Your task to perform on an android device: turn off improve location accuracy Image 0: 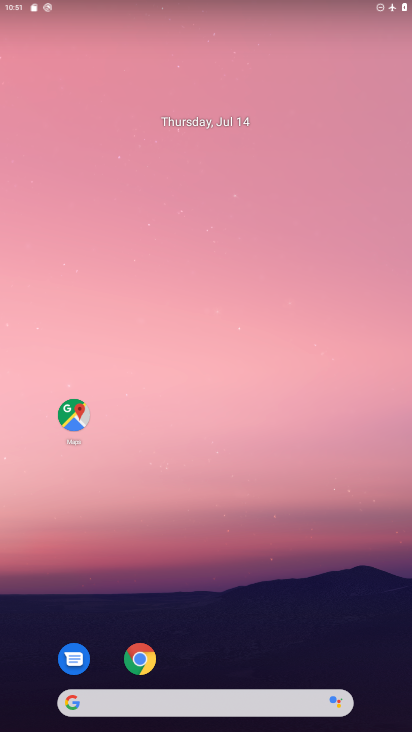
Step 0: drag from (238, 625) to (241, 144)
Your task to perform on an android device: turn off improve location accuracy Image 1: 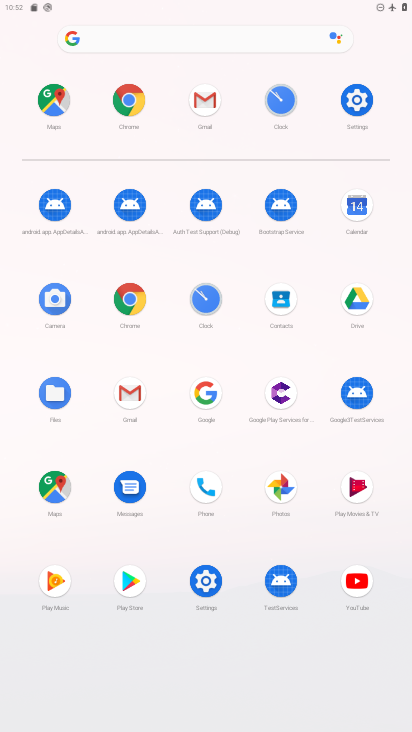
Step 1: click (358, 101)
Your task to perform on an android device: turn off improve location accuracy Image 2: 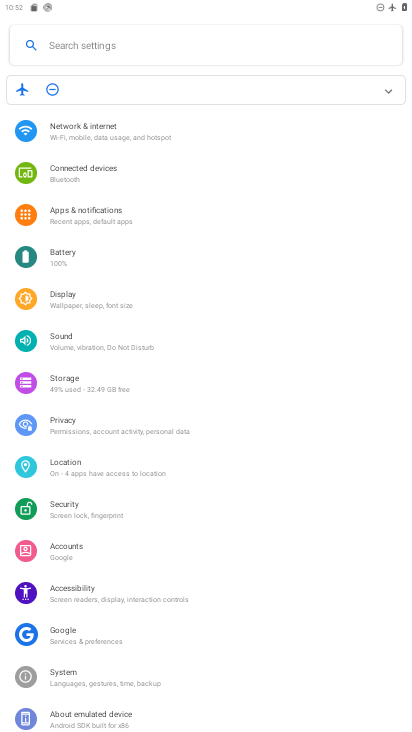
Step 2: click (115, 467)
Your task to perform on an android device: turn off improve location accuracy Image 3: 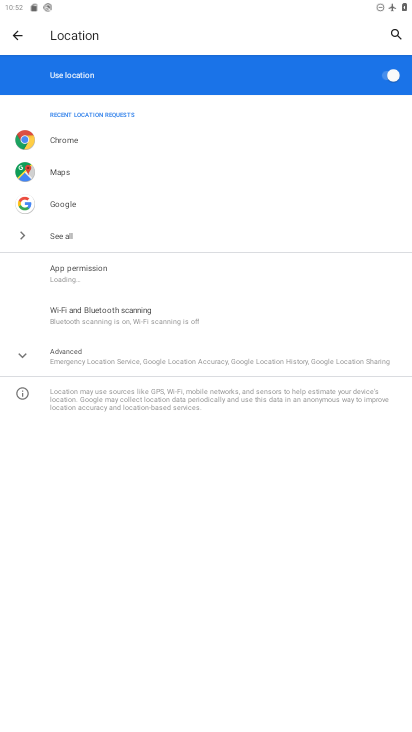
Step 3: click (124, 357)
Your task to perform on an android device: turn off improve location accuracy Image 4: 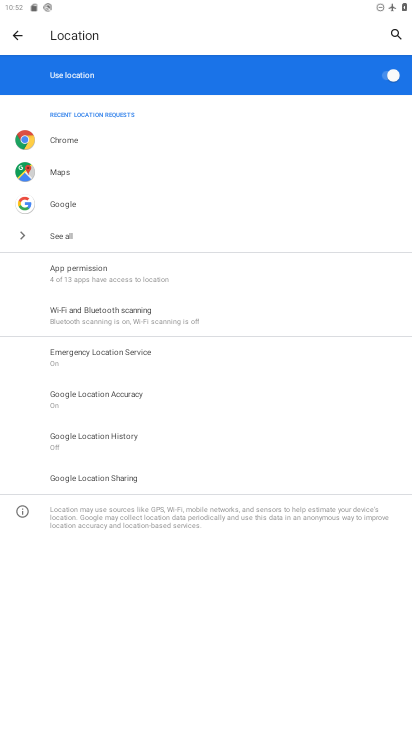
Step 4: click (116, 398)
Your task to perform on an android device: turn off improve location accuracy Image 5: 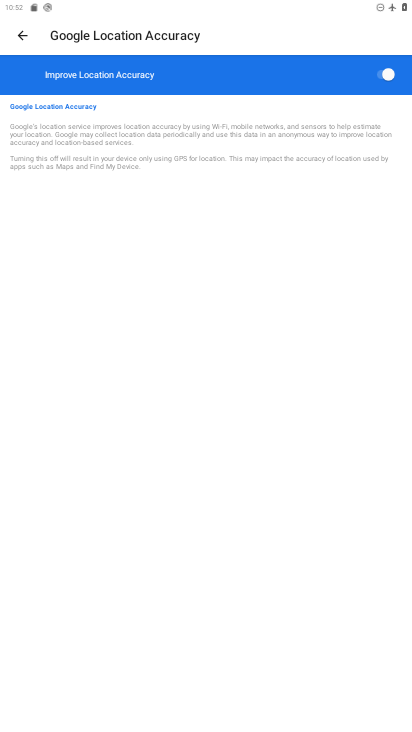
Step 5: click (374, 68)
Your task to perform on an android device: turn off improve location accuracy Image 6: 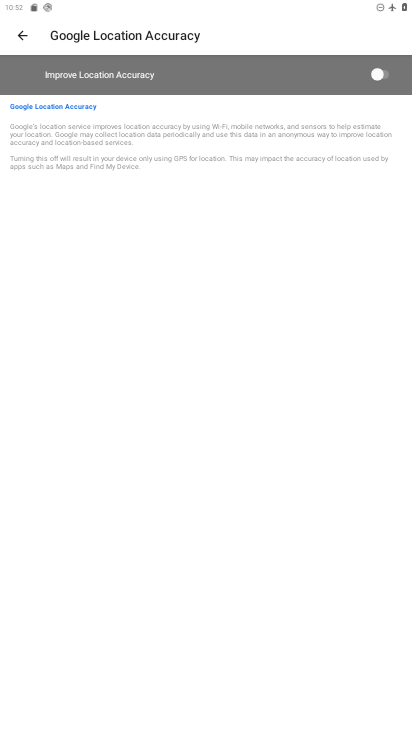
Step 6: task complete